Your task to perform on an android device: turn on showing notifications on the lock screen Image 0: 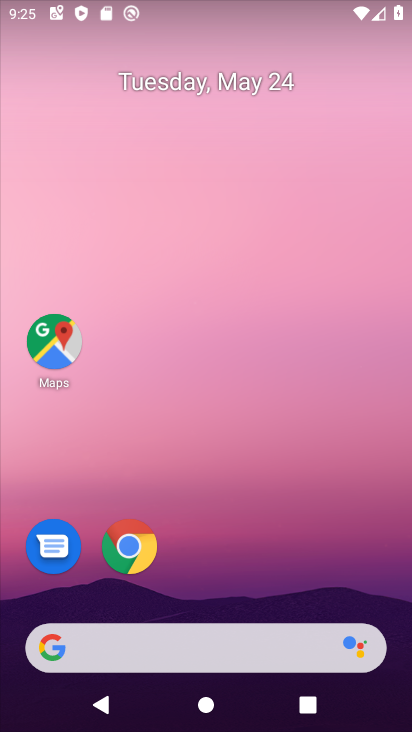
Step 0: drag from (210, 621) to (235, 387)
Your task to perform on an android device: turn on showing notifications on the lock screen Image 1: 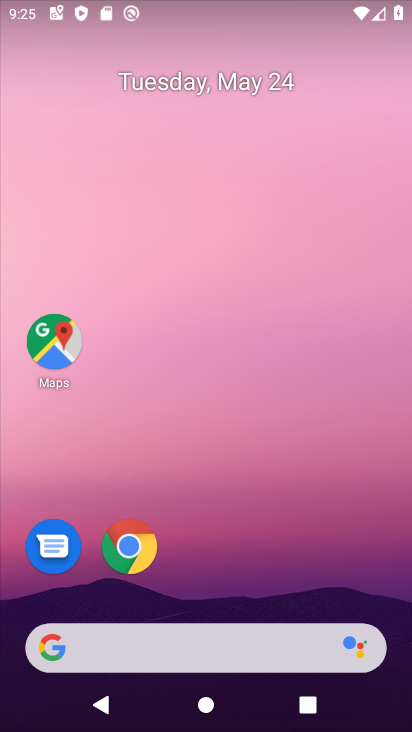
Step 1: drag from (234, 649) to (245, 219)
Your task to perform on an android device: turn on showing notifications on the lock screen Image 2: 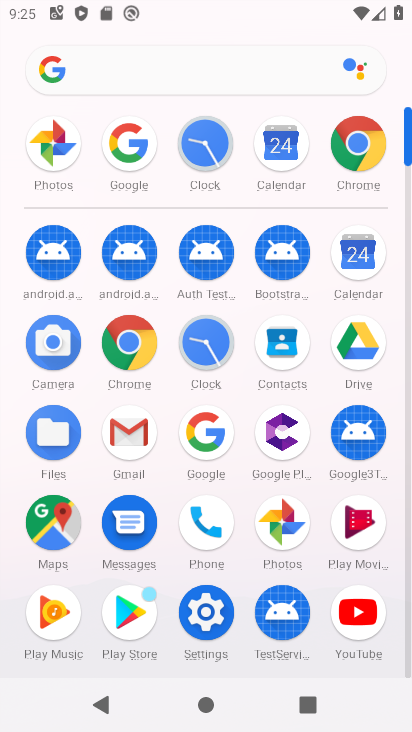
Step 2: click (205, 618)
Your task to perform on an android device: turn on showing notifications on the lock screen Image 3: 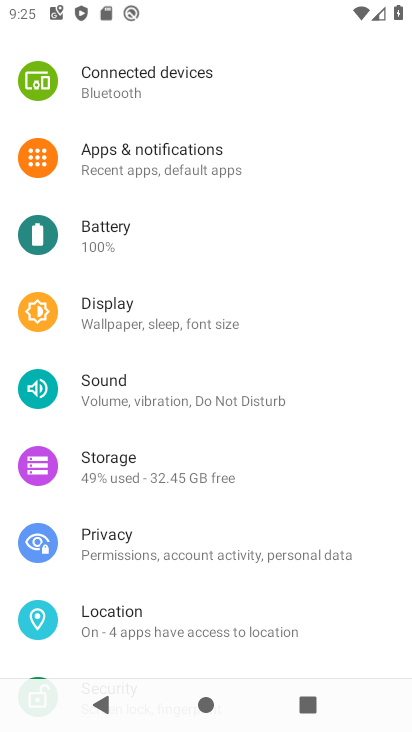
Step 3: click (125, 547)
Your task to perform on an android device: turn on showing notifications on the lock screen Image 4: 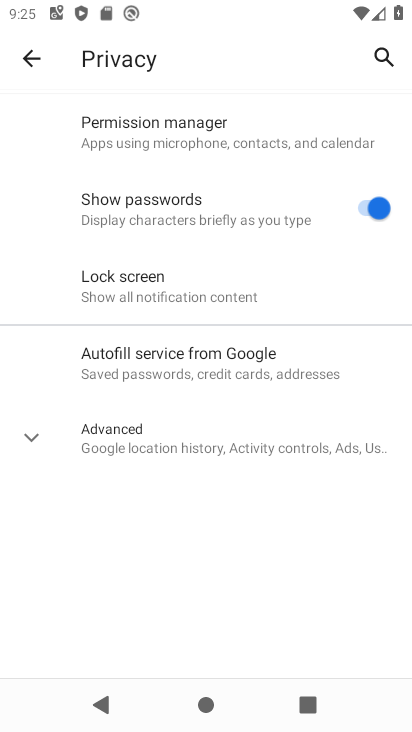
Step 4: click (117, 435)
Your task to perform on an android device: turn on showing notifications on the lock screen Image 5: 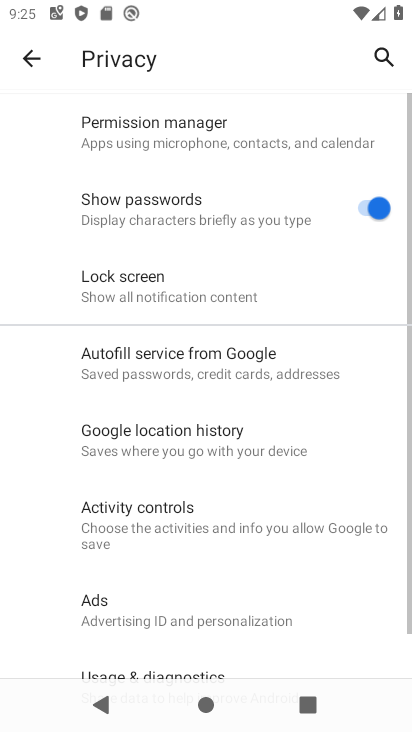
Step 5: click (133, 282)
Your task to perform on an android device: turn on showing notifications on the lock screen Image 6: 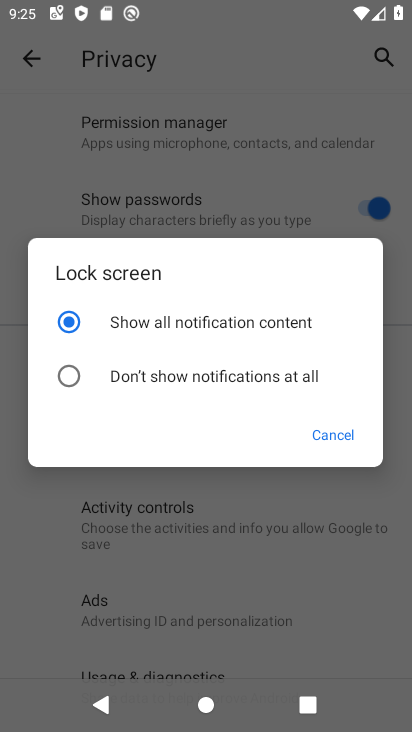
Step 6: click (340, 432)
Your task to perform on an android device: turn on showing notifications on the lock screen Image 7: 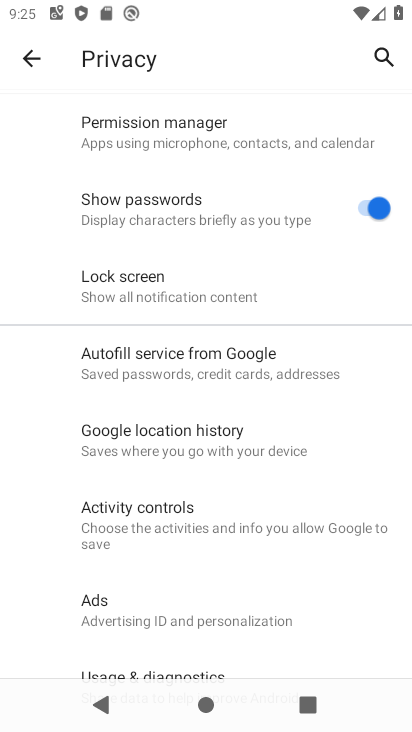
Step 7: task complete